Your task to perform on an android device: Check the news Image 0: 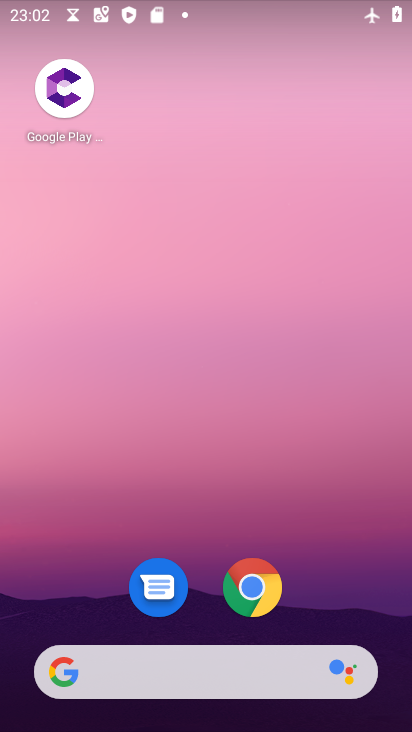
Step 0: drag from (336, 600) to (212, 3)
Your task to perform on an android device: Check the news Image 1: 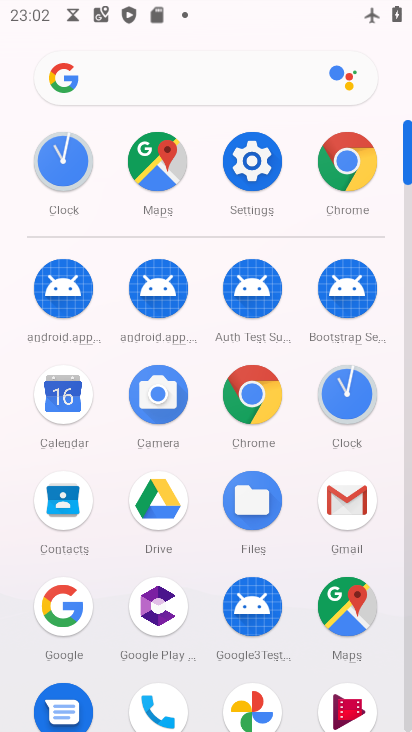
Step 1: drag from (9, 517) to (8, 273)
Your task to perform on an android device: Check the news Image 2: 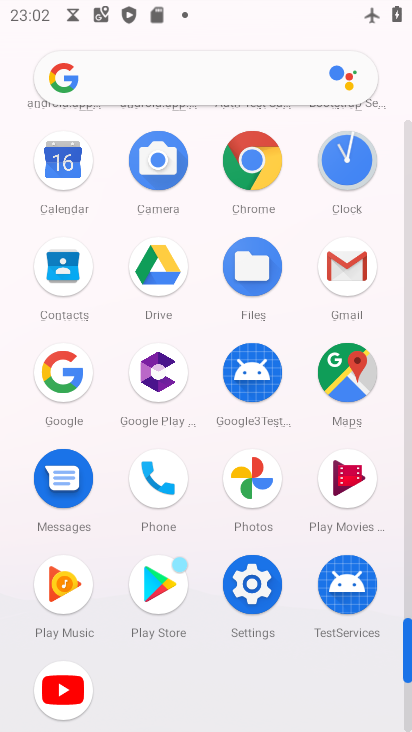
Step 2: click (251, 154)
Your task to perform on an android device: Check the news Image 3: 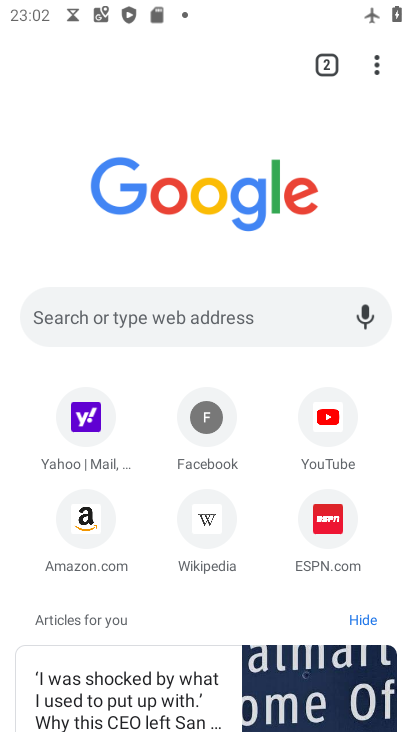
Step 3: click (179, 309)
Your task to perform on an android device: Check the news Image 4: 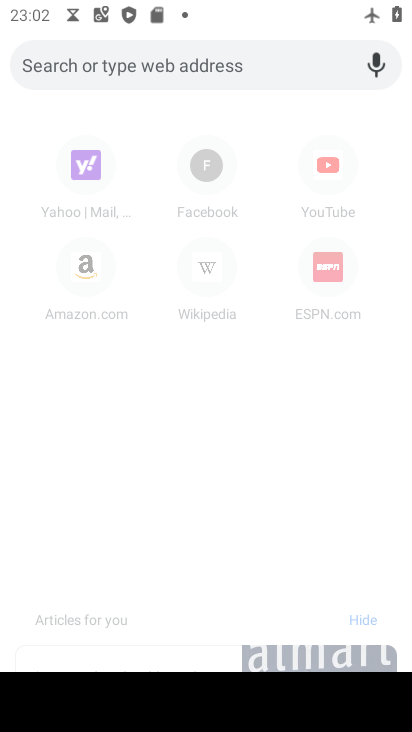
Step 4: click (108, 54)
Your task to perform on an android device: Check the news Image 5: 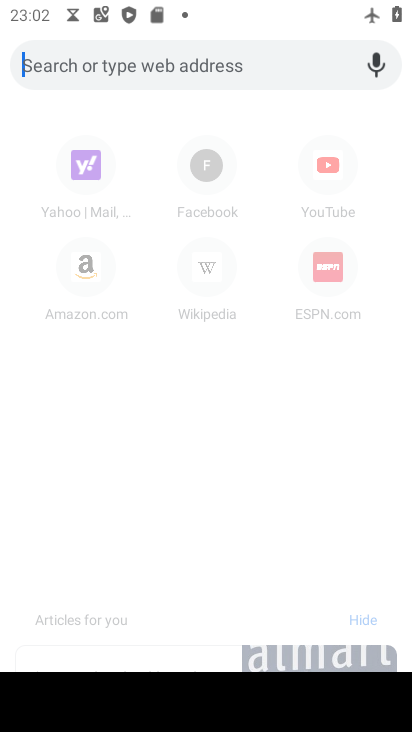
Step 5: type "Check the news"
Your task to perform on an android device: Check the news Image 6: 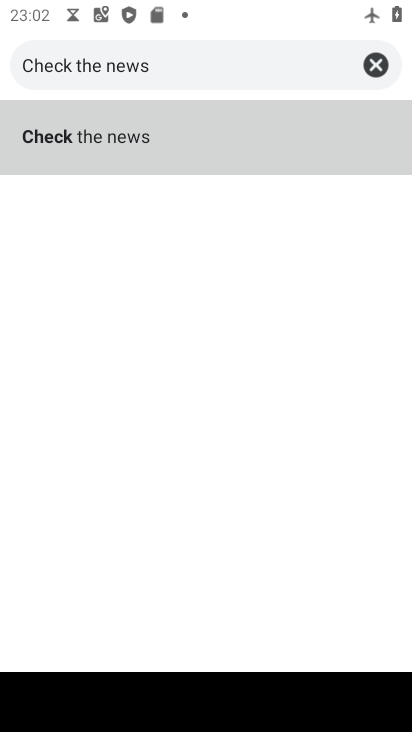
Step 6: click (186, 143)
Your task to perform on an android device: Check the news Image 7: 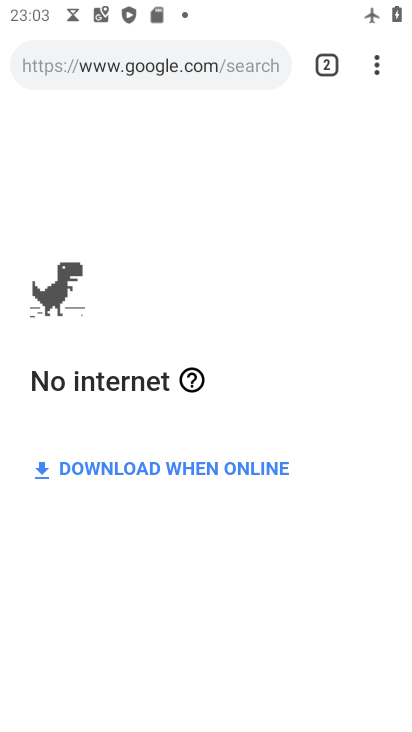
Step 7: task complete